Your task to perform on an android device: set an alarm Image 0: 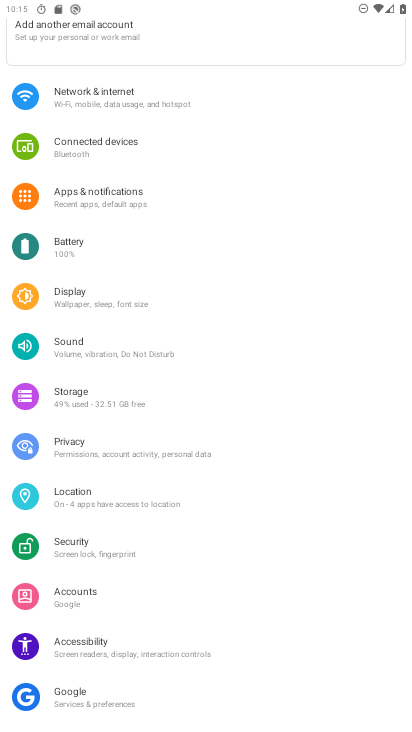
Step 0: press home button
Your task to perform on an android device: set an alarm Image 1: 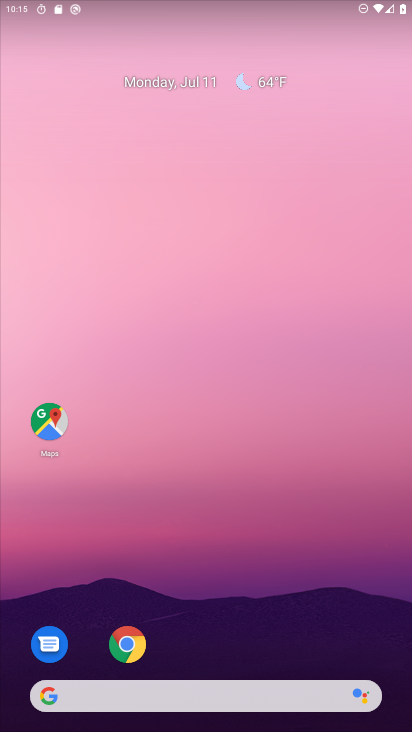
Step 1: drag from (290, 489) to (252, 120)
Your task to perform on an android device: set an alarm Image 2: 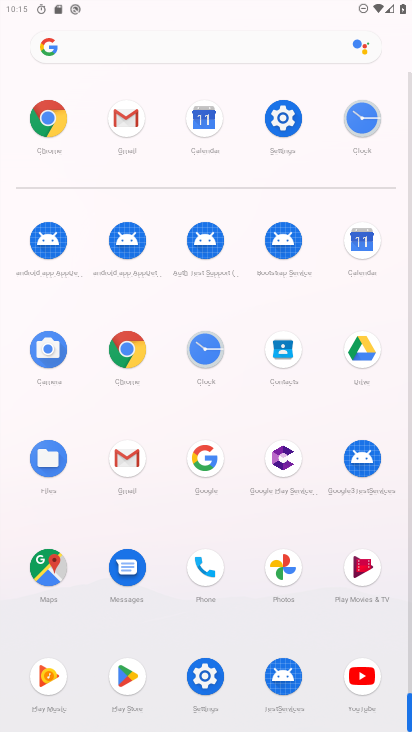
Step 2: click (218, 348)
Your task to perform on an android device: set an alarm Image 3: 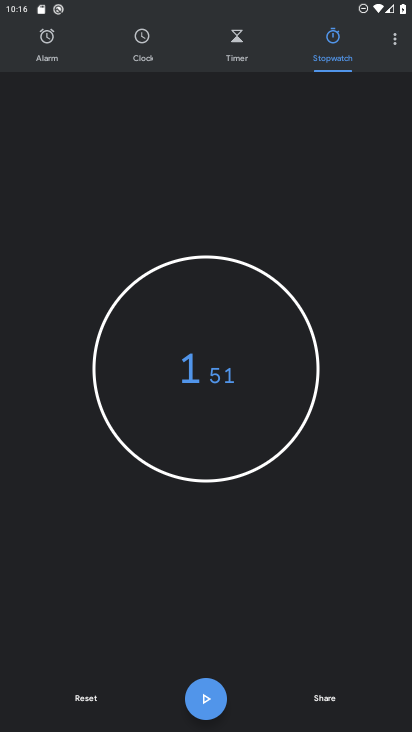
Step 3: click (50, 41)
Your task to perform on an android device: set an alarm Image 4: 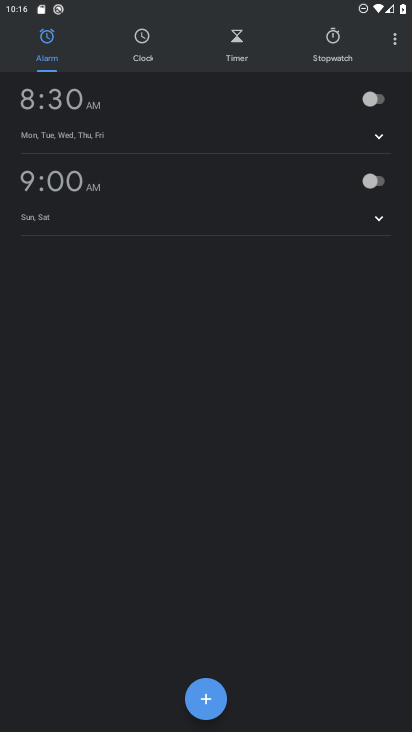
Step 4: click (206, 690)
Your task to perform on an android device: set an alarm Image 5: 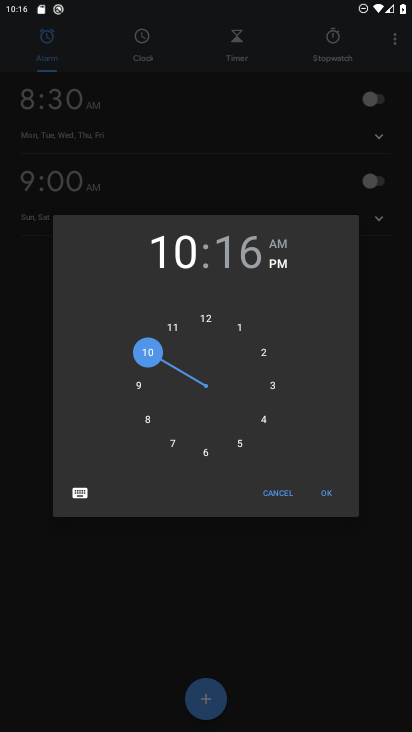
Step 5: click (320, 492)
Your task to perform on an android device: set an alarm Image 6: 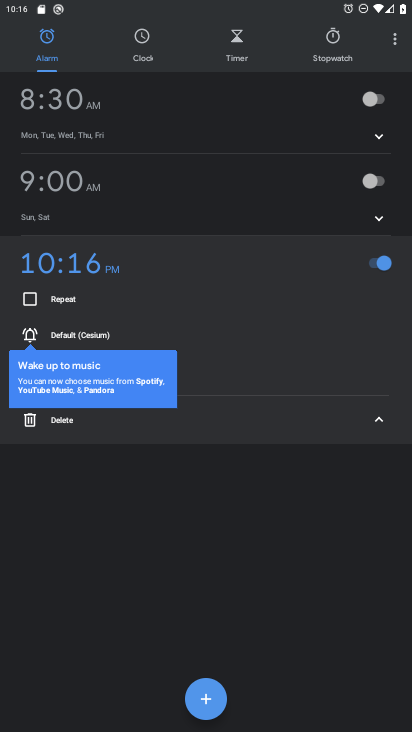
Step 6: task complete